Your task to perform on an android device: turn on wifi Image 0: 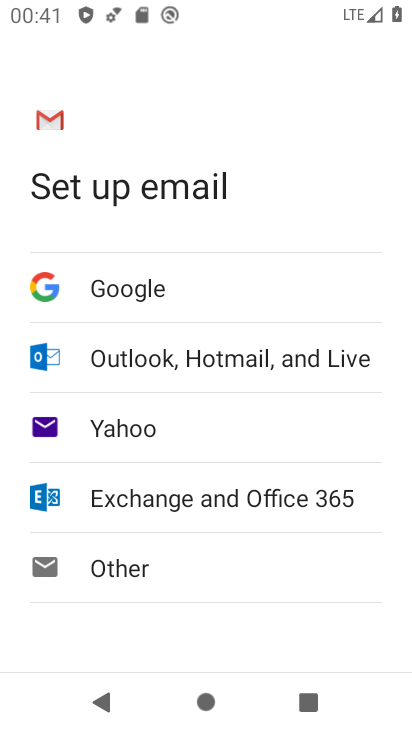
Step 0: press home button
Your task to perform on an android device: turn on wifi Image 1: 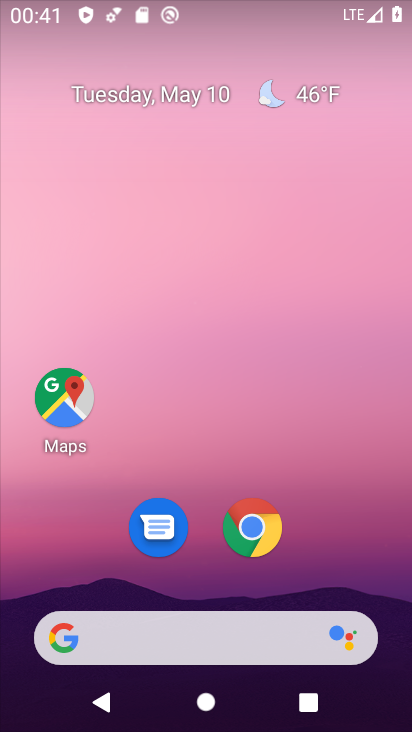
Step 1: drag from (327, 524) to (122, 150)
Your task to perform on an android device: turn on wifi Image 2: 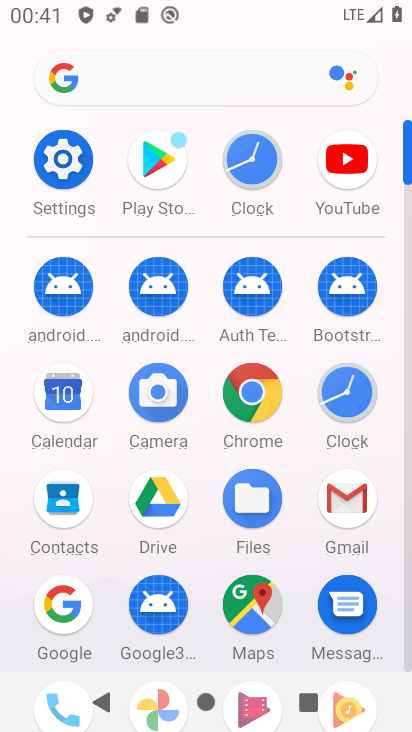
Step 2: click (69, 149)
Your task to perform on an android device: turn on wifi Image 3: 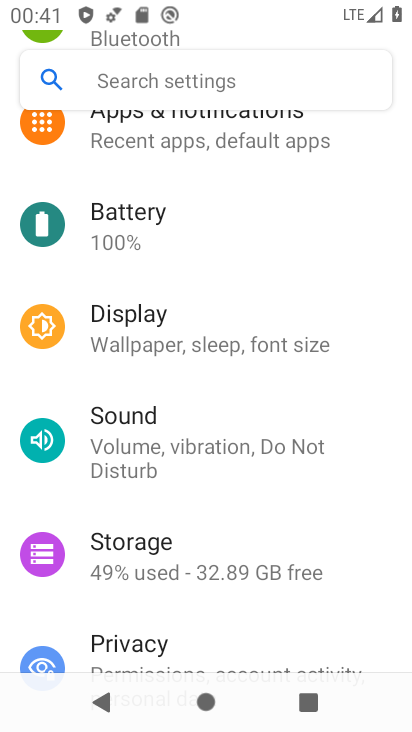
Step 3: drag from (220, 182) to (195, 554)
Your task to perform on an android device: turn on wifi Image 4: 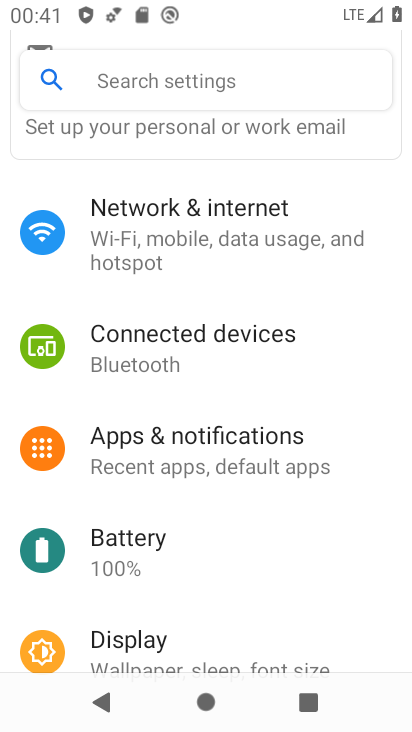
Step 4: click (209, 238)
Your task to perform on an android device: turn on wifi Image 5: 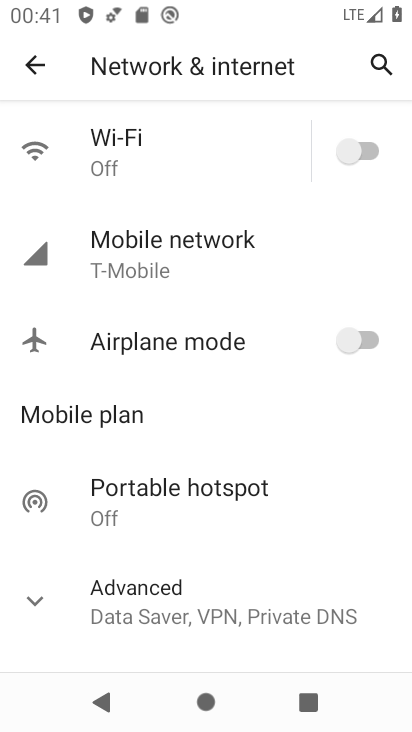
Step 5: click (354, 155)
Your task to perform on an android device: turn on wifi Image 6: 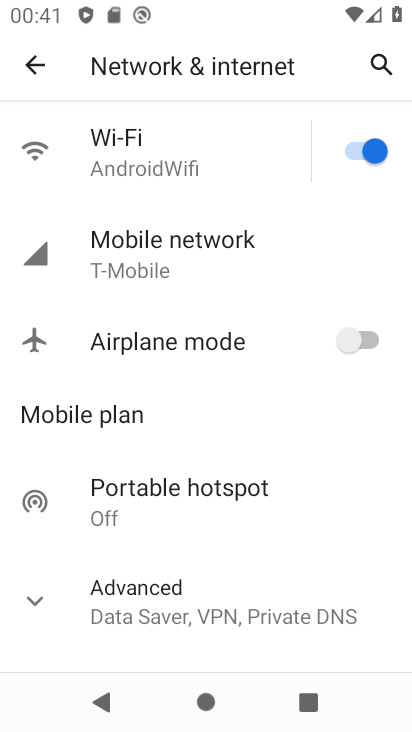
Step 6: task complete